Your task to perform on an android device: Go to Reddit.com Image 0: 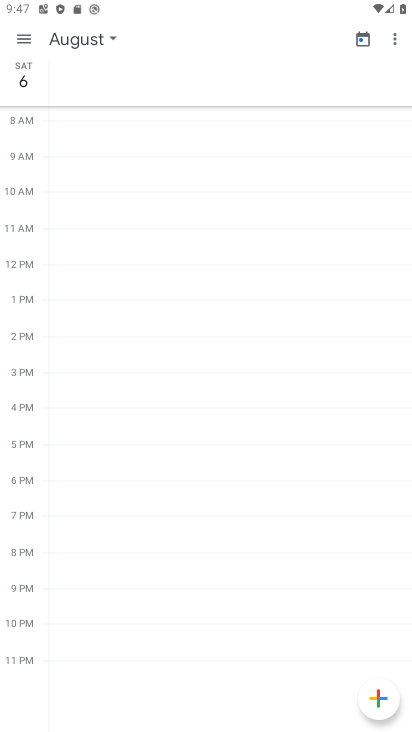
Step 0: press home button
Your task to perform on an android device: Go to Reddit.com Image 1: 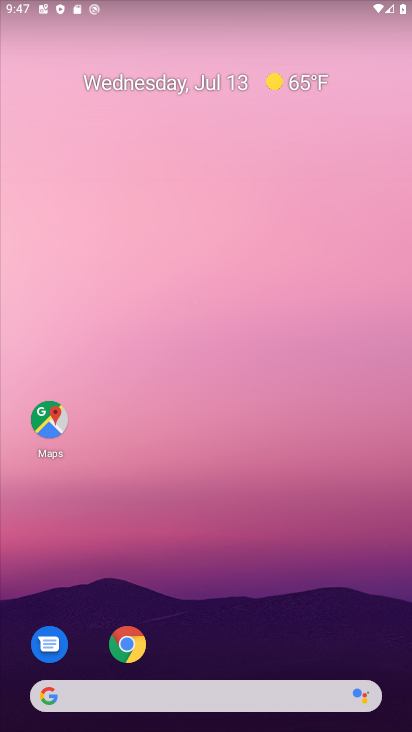
Step 1: drag from (321, 653) to (179, 57)
Your task to perform on an android device: Go to Reddit.com Image 2: 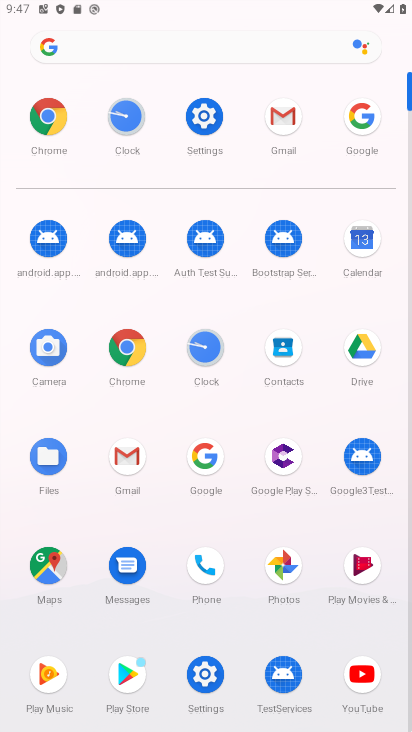
Step 2: click (63, 111)
Your task to perform on an android device: Go to Reddit.com Image 3: 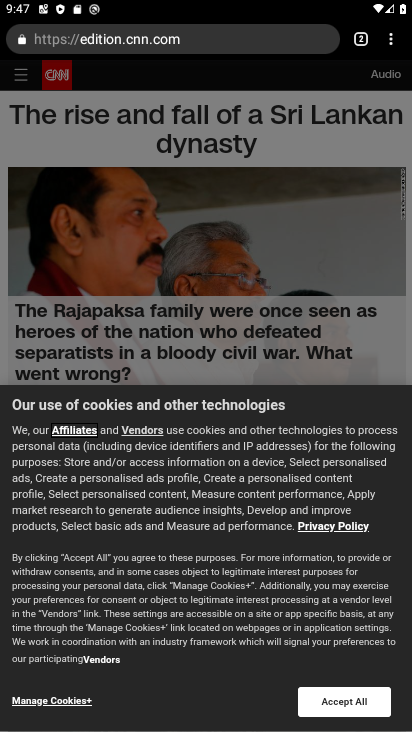
Step 3: click (204, 37)
Your task to perform on an android device: Go to Reddit.com Image 4: 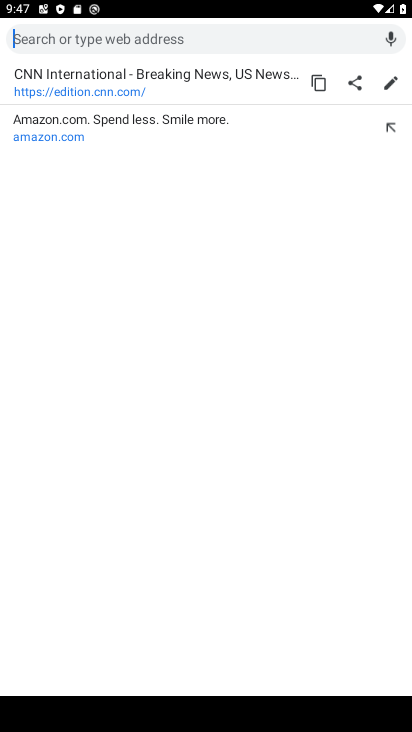
Step 4: type "Reddit.com"
Your task to perform on an android device: Go to Reddit.com Image 5: 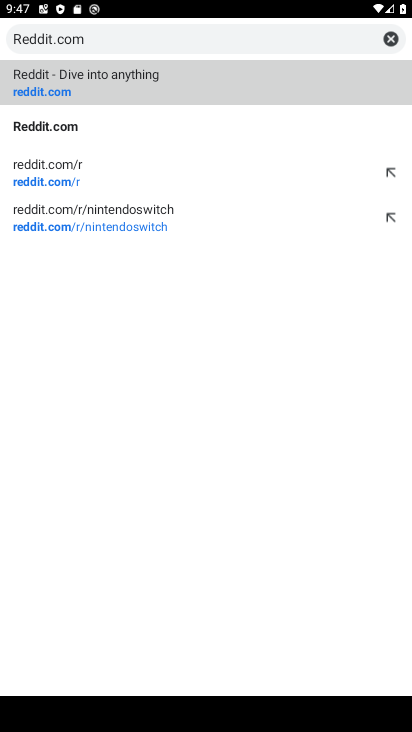
Step 5: click (50, 79)
Your task to perform on an android device: Go to Reddit.com Image 6: 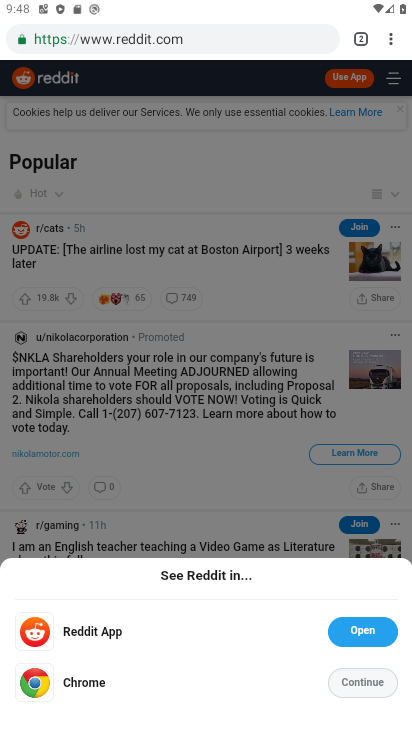
Step 6: task complete